Your task to perform on an android device: Open display settings Image 0: 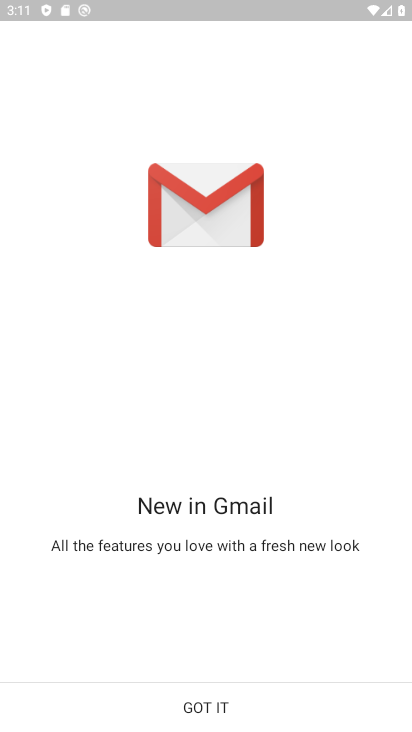
Step 0: press home button
Your task to perform on an android device: Open display settings Image 1: 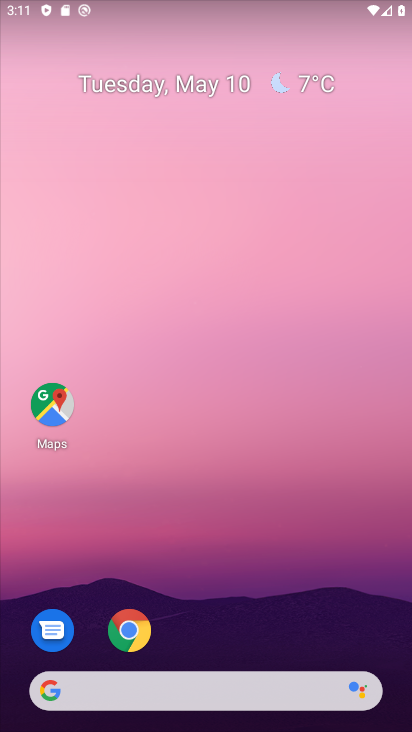
Step 1: drag from (238, 680) to (310, 194)
Your task to perform on an android device: Open display settings Image 2: 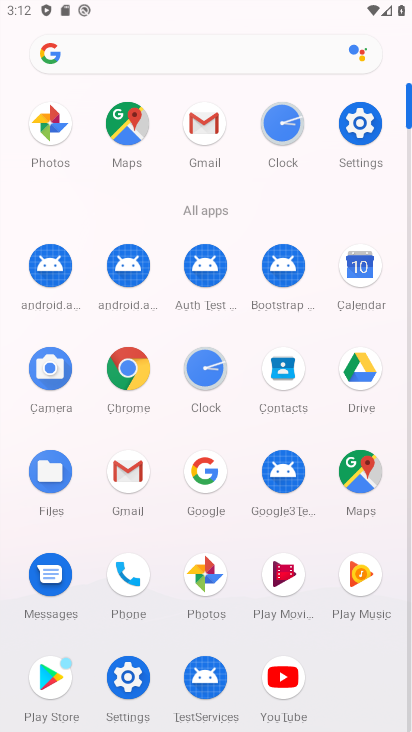
Step 2: click (349, 124)
Your task to perform on an android device: Open display settings Image 3: 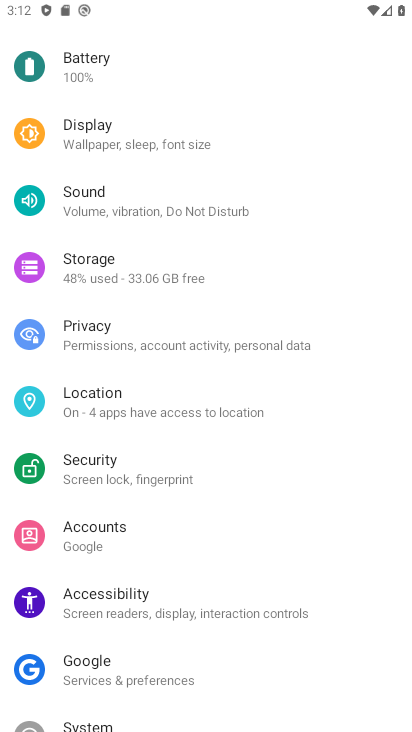
Step 3: click (99, 141)
Your task to perform on an android device: Open display settings Image 4: 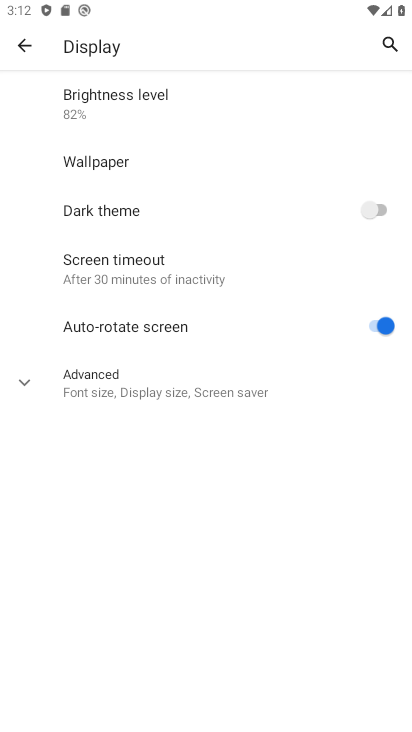
Step 4: task complete